Your task to perform on an android device: change keyboard looks Image 0: 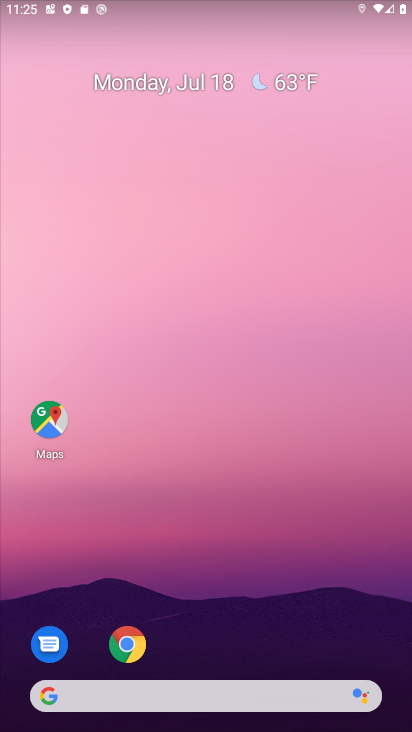
Step 0: drag from (225, 724) to (221, 139)
Your task to perform on an android device: change keyboard looks Image 1: 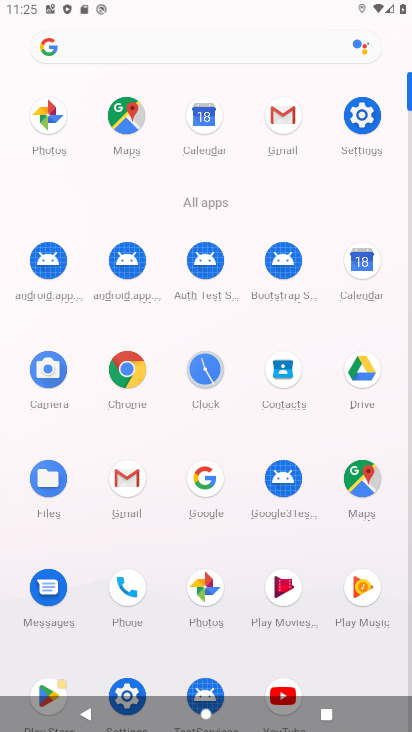
Step 1: click (360, 106)
Your task to perform on an android device: change keyboard looks Image 2: 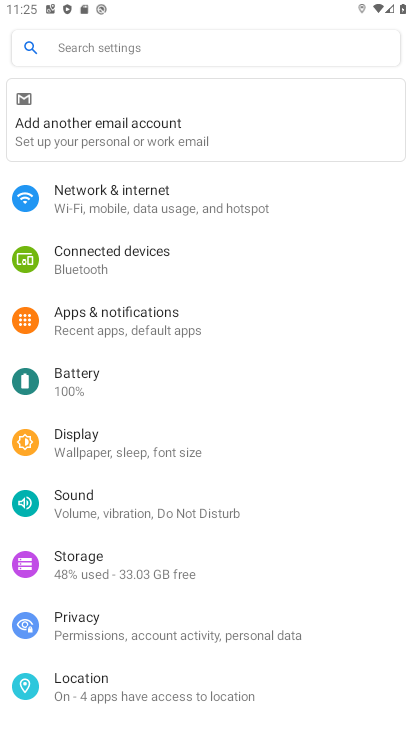
Step 2: drag from (122, 682) to (122, 332)
Your task to perform on an android device: change keyboard looks Image 3: 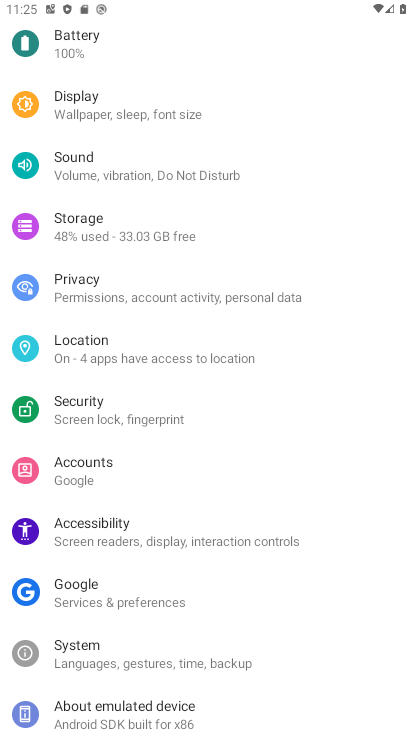
Step 3: drag from (184, 677) to (174, 289)
Your task to perform on an android device: change keyboard looks Image 4: 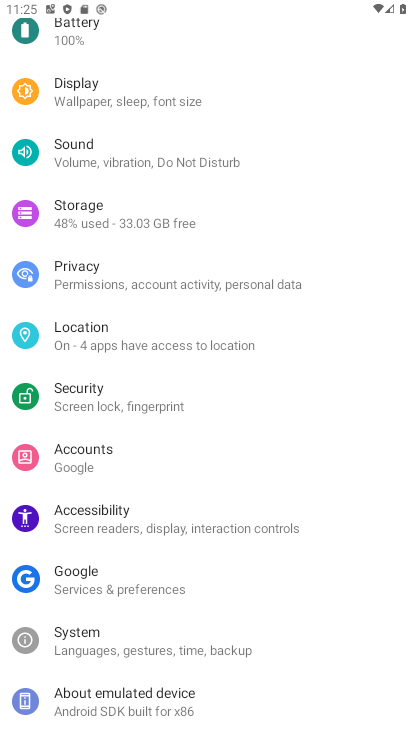
Step 4: click (133, 644)
Your task to perform on an android device: change keyboard looks Image 5: 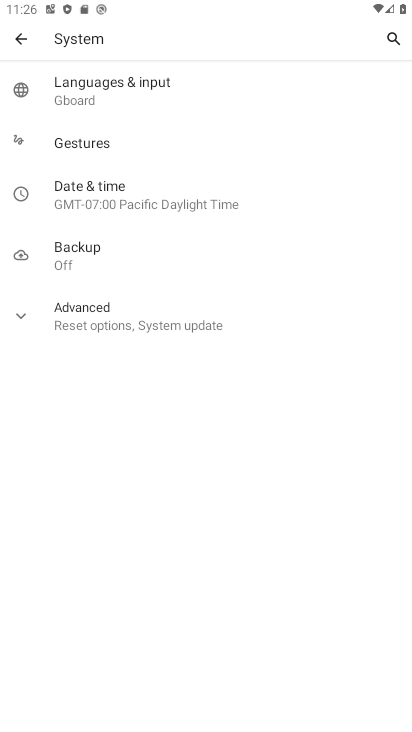
Step 5: click (84, 83)
Your task to perform on an android device: change keyboard looks Image 6: 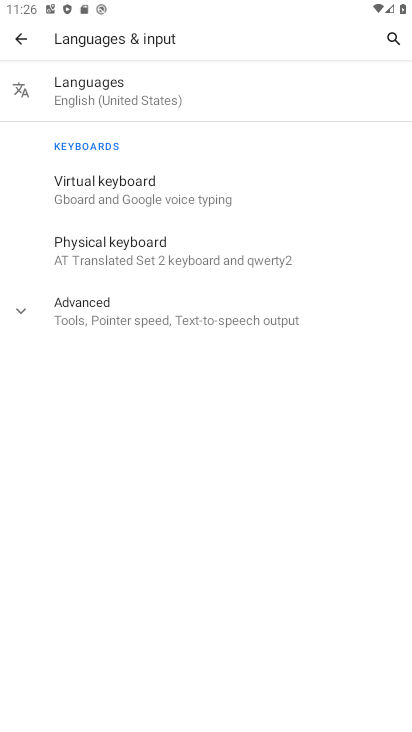
Step 6: click (108, 189)
Your task to perform on an android device: change keyboard looks Image 7: 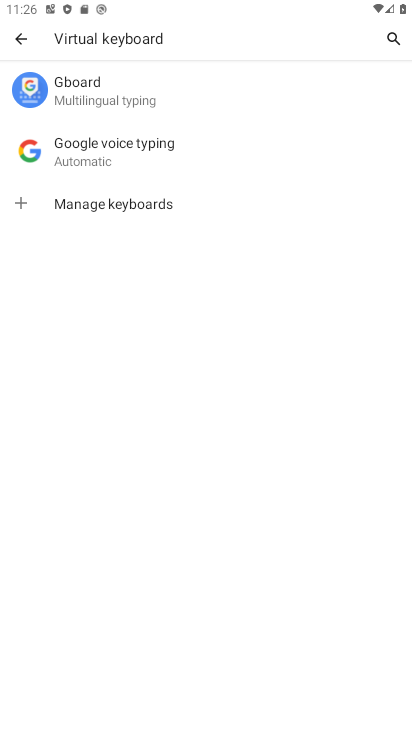
Step 7: click (104, 89)
Your task to perform on an android device: change keyboard looks Image 8: 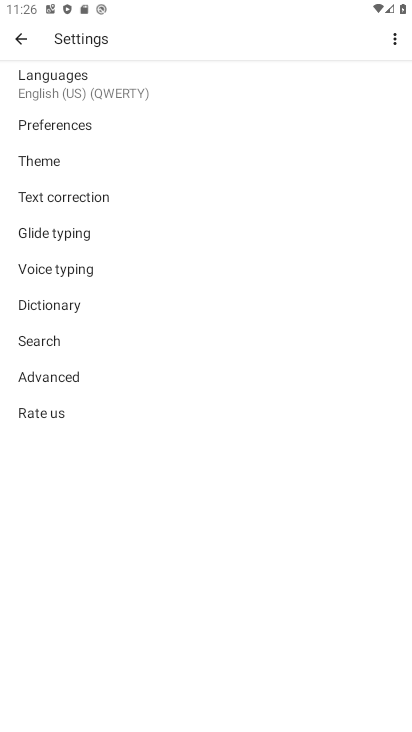
Step 8: click (41, 172)
Your task to perform on an android device: change keyboard looks Image 9: 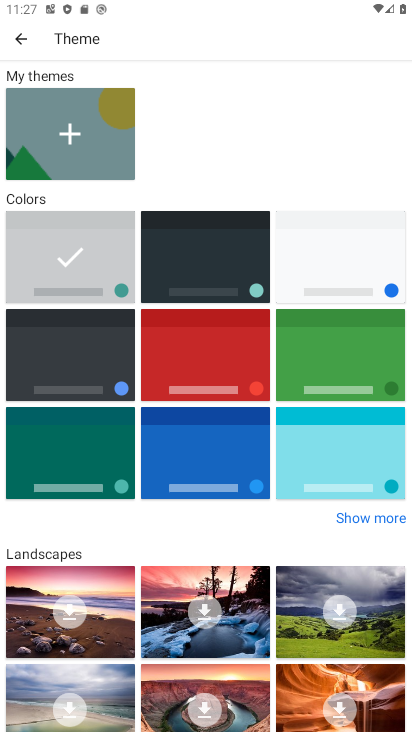
Step 9: click (229, 271)
Your task to perform on an android device: change keyboard looks Image 10: 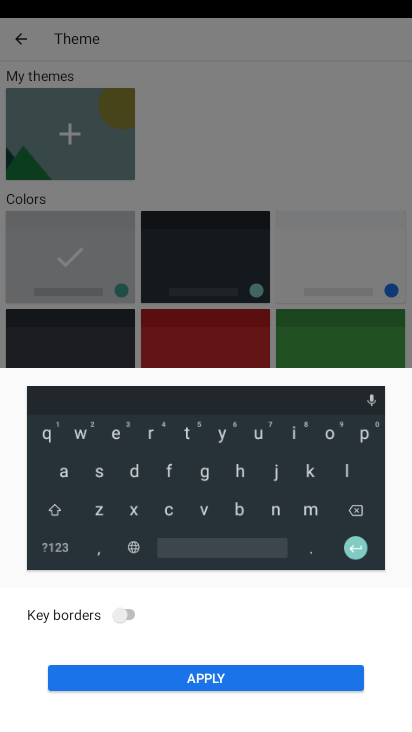
Step 10: click (127, 615)
Your task to perform on an android device: change keyboard looks Image 11: 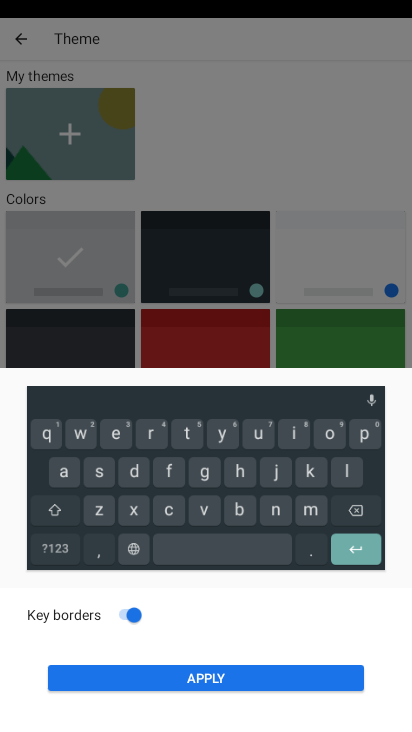
Step 11: click (208, 675)
Your task to perform on an android device: change keyboard looks Image 12: 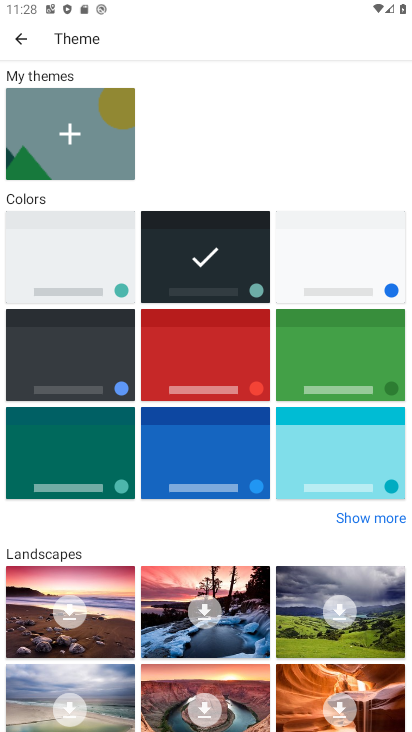
Step 12: task complete